Your task to perform on an android device: Go to CNN.com Image 0: 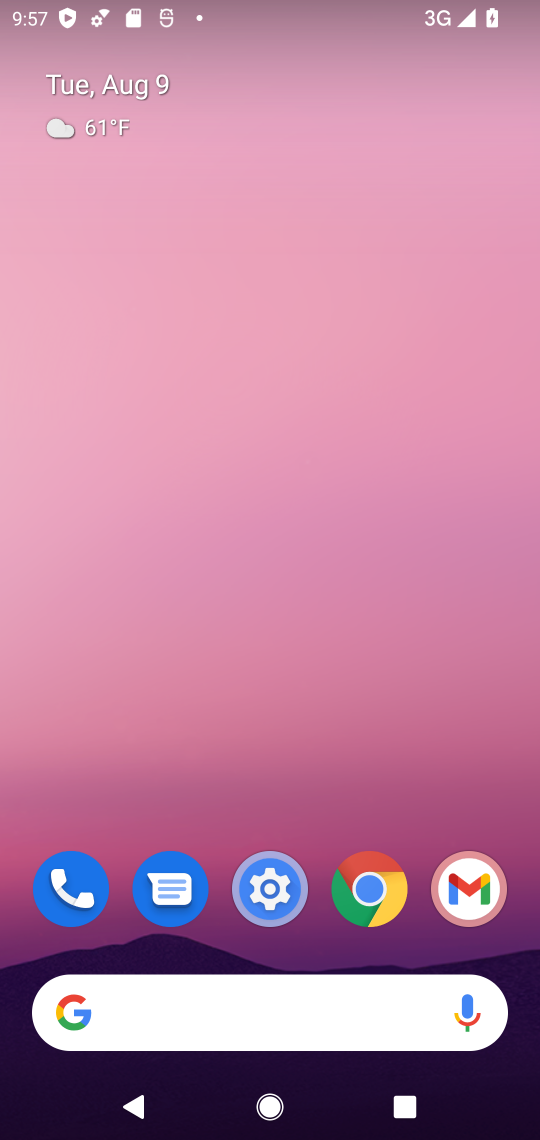
Step 0: drag from (229, 747) to (7, 361)
Your task to perform on an android device: Go to CNN.com Image 1: 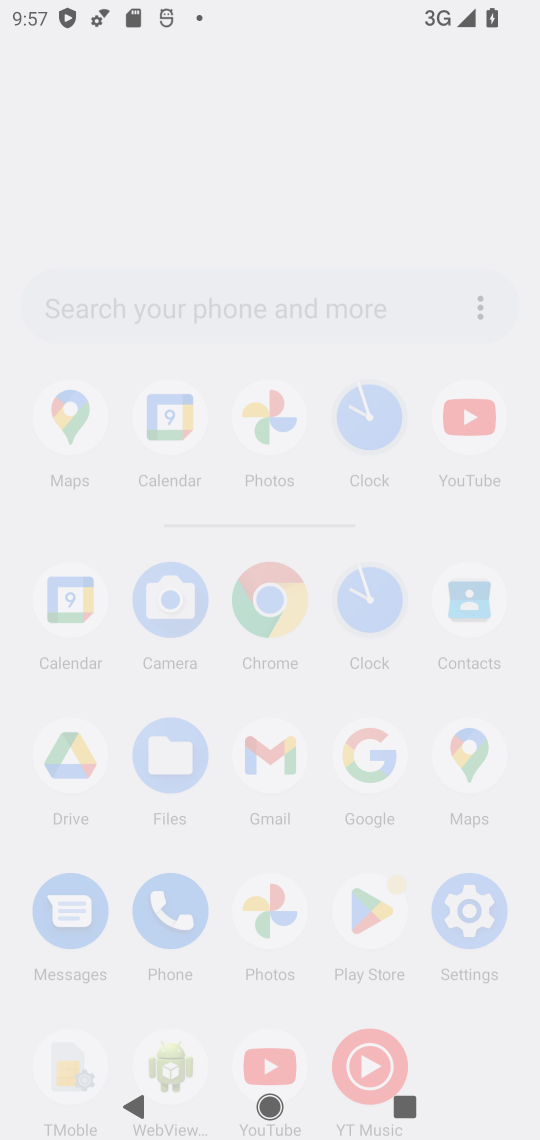
Step 1: click (260, 421)
Your task to perform on an android device: Go to CNN.com Image 2: 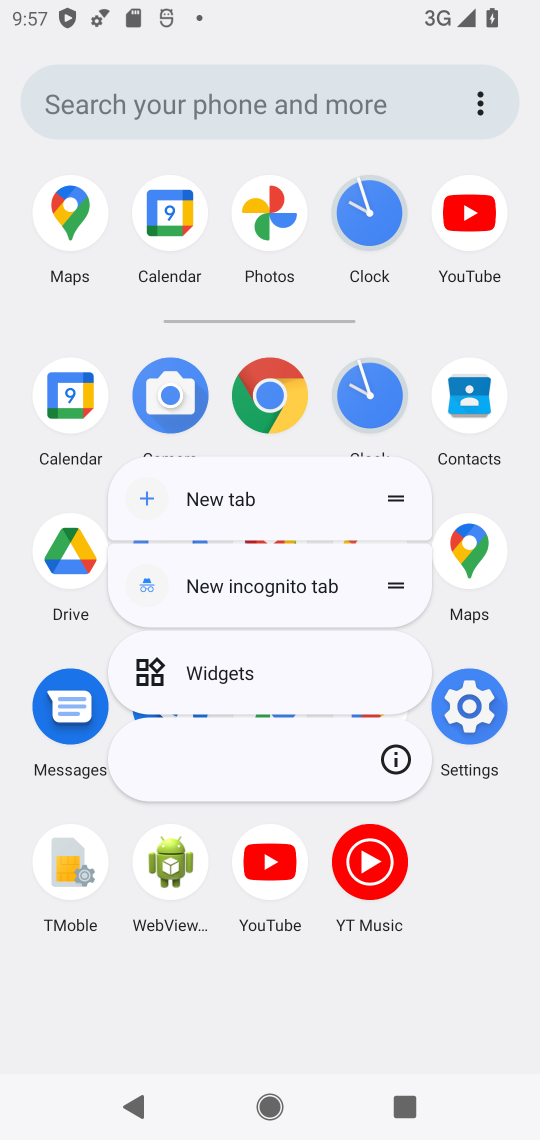
Step 2: click (260, 418)
Your task to perform on an android device: Go to CNN.com Image 3: 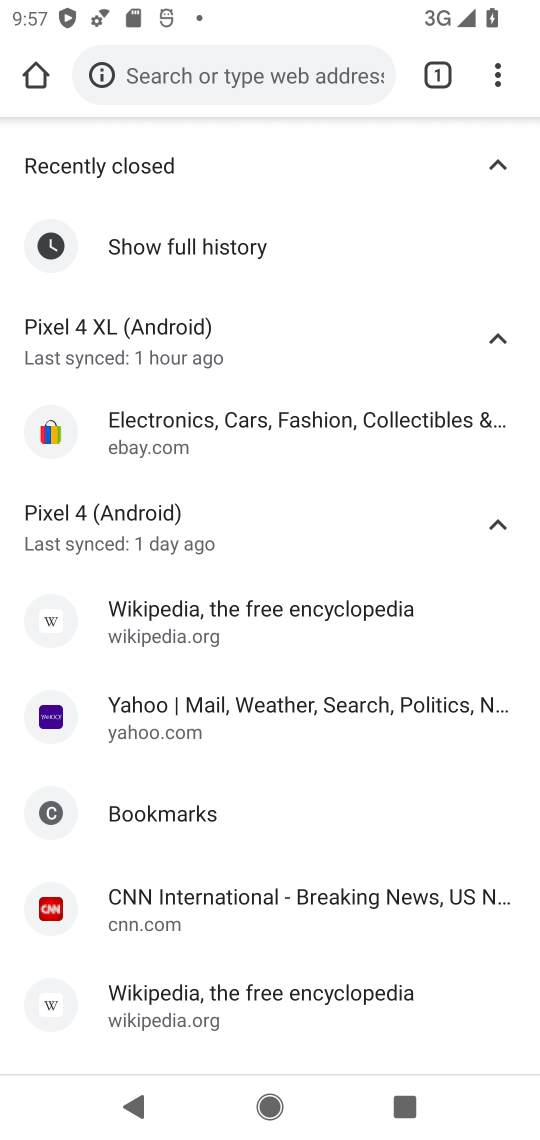
Step 3: click (204, 71)
Your task to perform on an android device: Go to CNN.com Image 4: 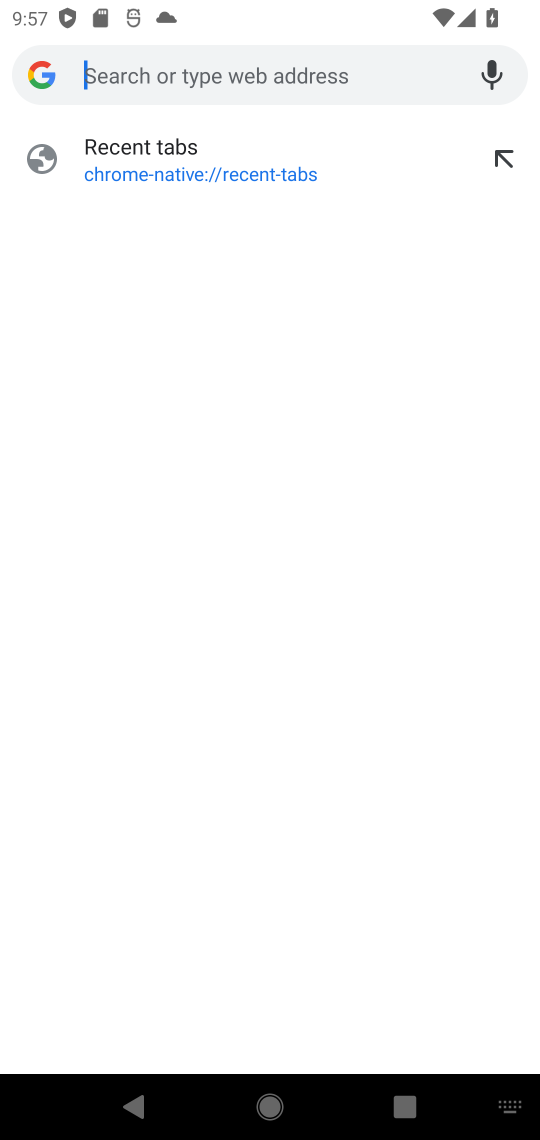
Step 4: type "cnn.com"
Your task to perform on an android device: Go to CNN.com Image 5: 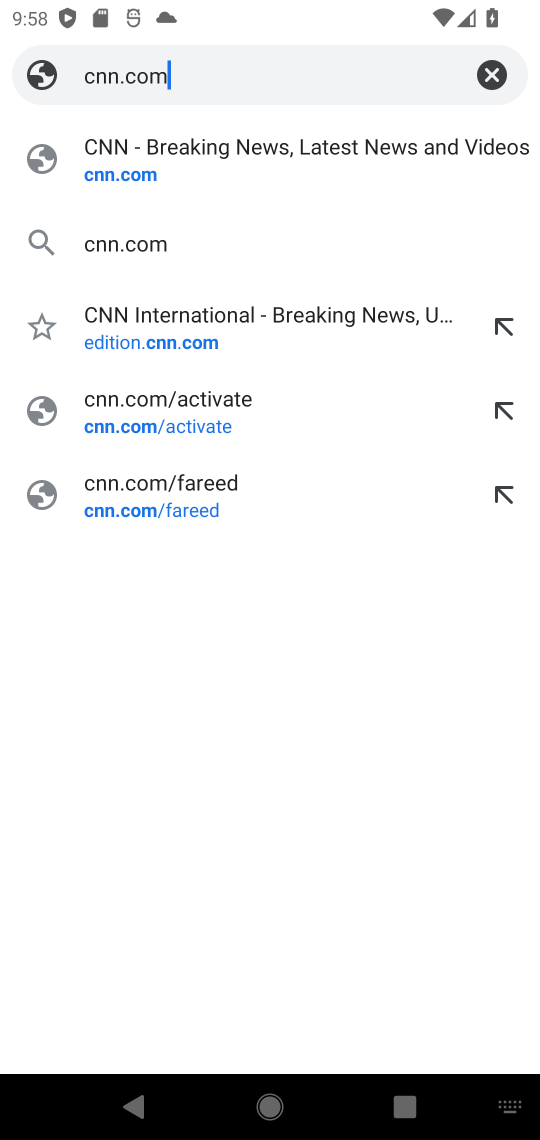
Step 5: click (126, 168)
Your task to perform on an android device: Go to CNN.com Image 6: 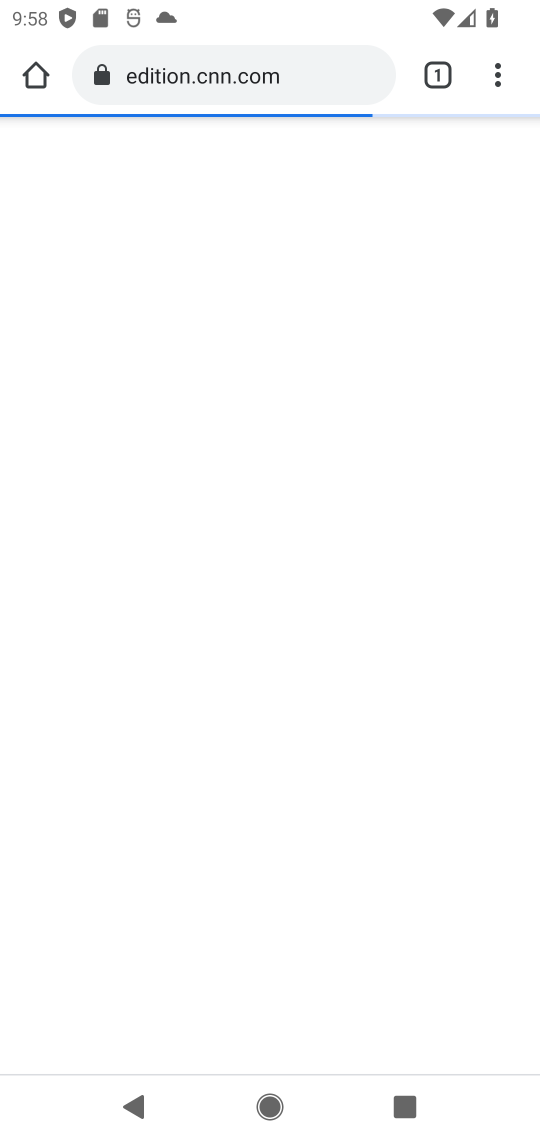
Step 6: task complete